Your task to perform on an android device: Go to calendar. Show me events next week Image 0: 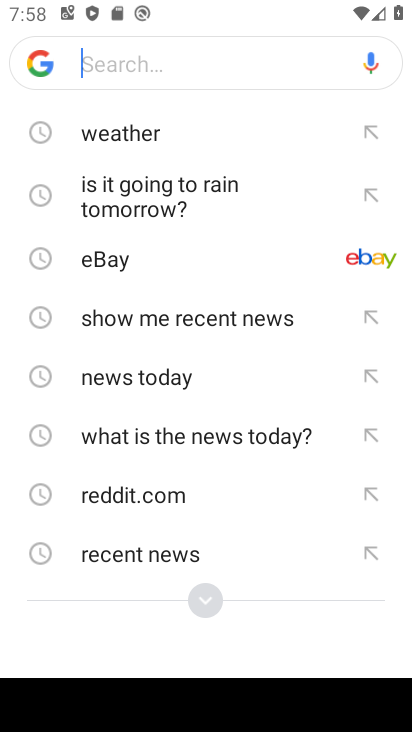
Step 0: press home button
Your task to perform on an android device: Go to calendar. Show me events next week Image 1: 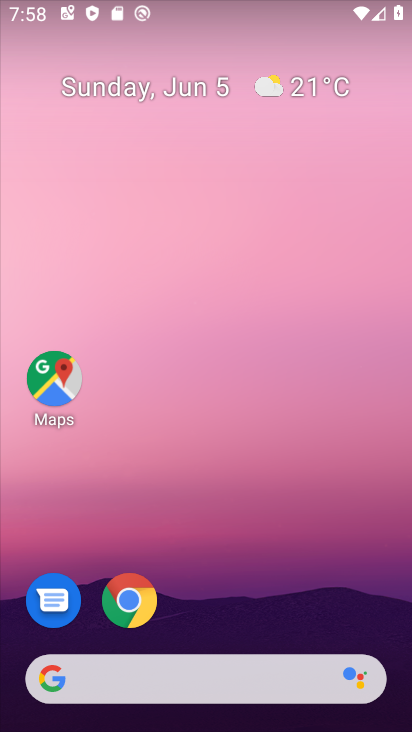
Step 1: drag from (224, 445) to (215, 3)
Your task to perform on an android device: Go to calendar. Show me events next week Image 2: 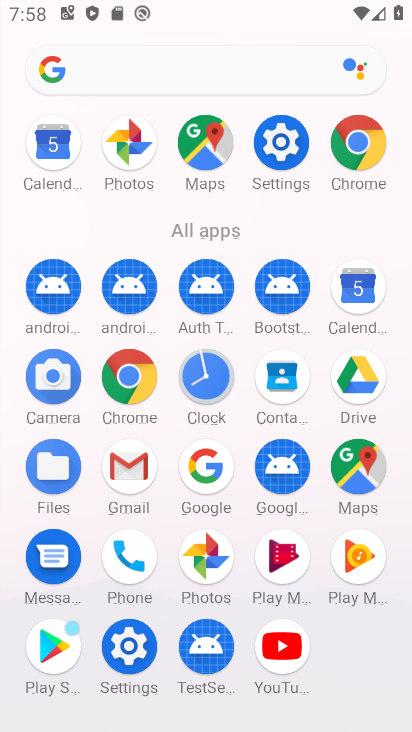
Step 2: click (54, 145)
Your task to perform on an android device: Go to calendar. Show me events next week Image 3: 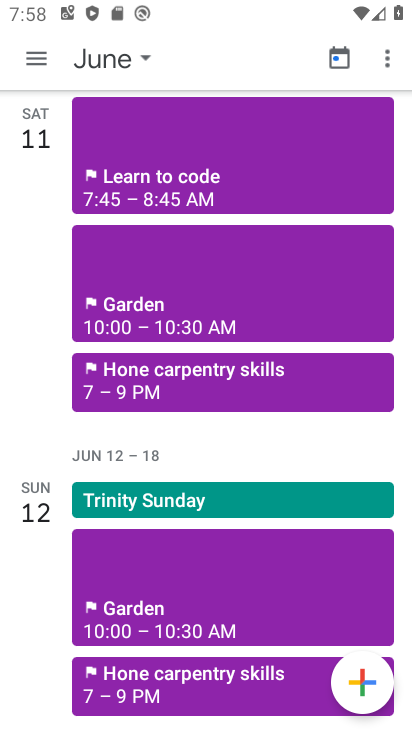
Step 3: click (37, 45)
Your task to perform on an android device: Go to calendar. Show me events next week Image 4: 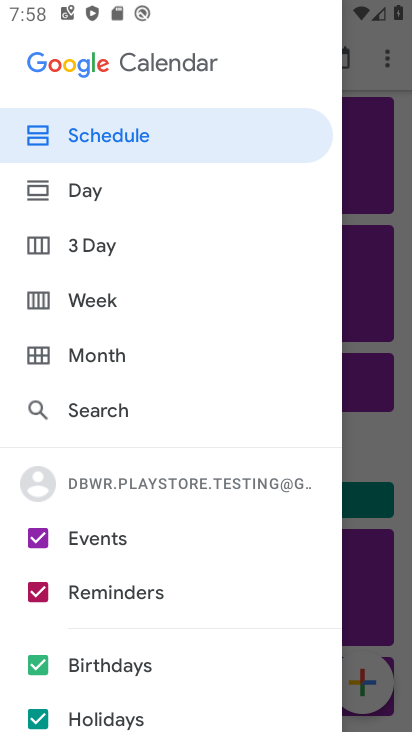
Step 4: click (51, 303)
Your task to perform on an android device: Go to calendar. Show me events next week Image 5: 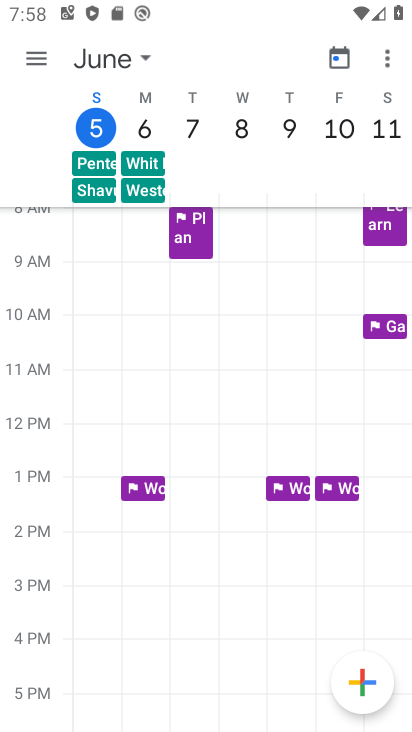
Step 5: task complete